Your task to perform on an android device: Check the weather Image 0: 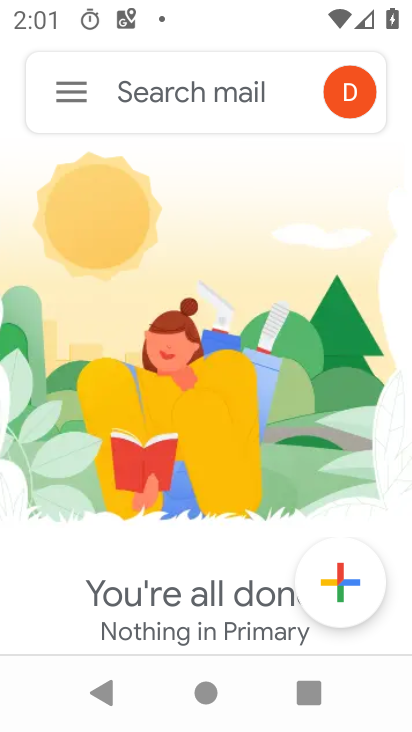
Step 0: press home button
Your task to perform on an android device: Check the weather Image 1: 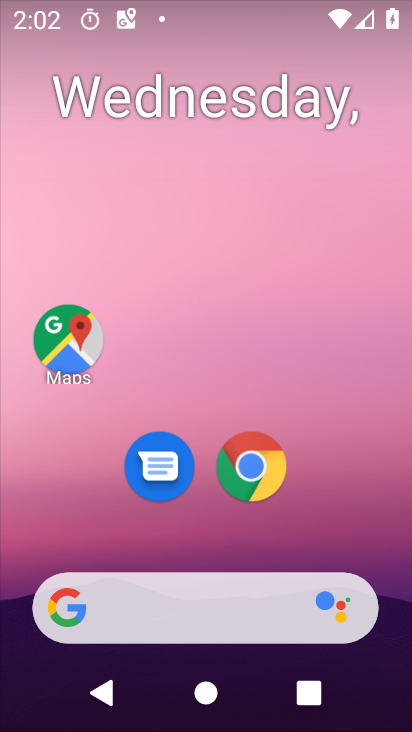
Step 1: click (225, 585)
Your task to perform on an android device: Check the weather Image 2: 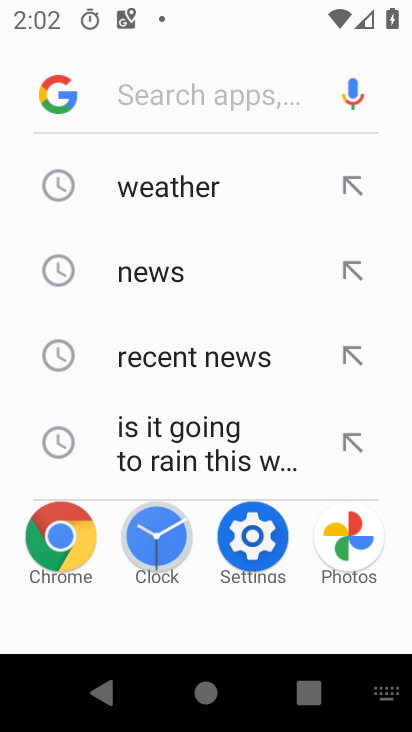
Step 2: click (174, 177)
Your task to perform on an android device: Check the weather Image 3: 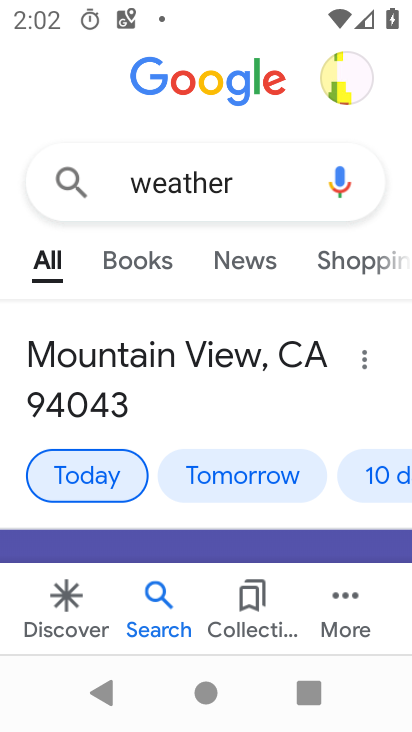
Step 3: drag from (281, 500) to (290, 121)
Your task to perform on an android device: Check the weather Image 4: 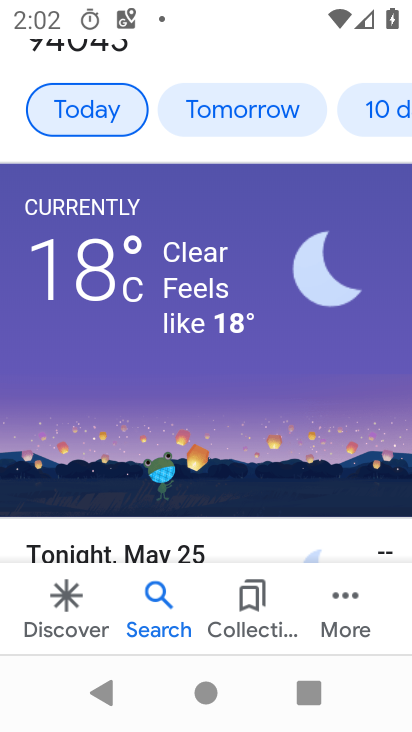
Step 4: drag from (242, 349) to (257, 92)
Your task to perform on an android device: Check the weather Image 5: 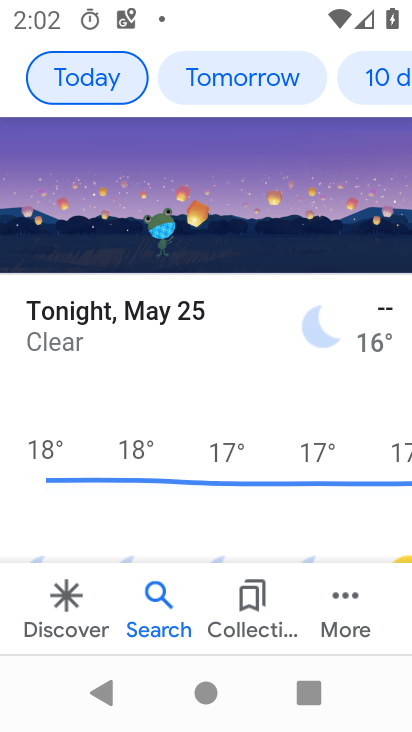
Step 5: drag from (327, 392) to (9, 372)
Your task to perform on an android device: Check the weather Image 6: 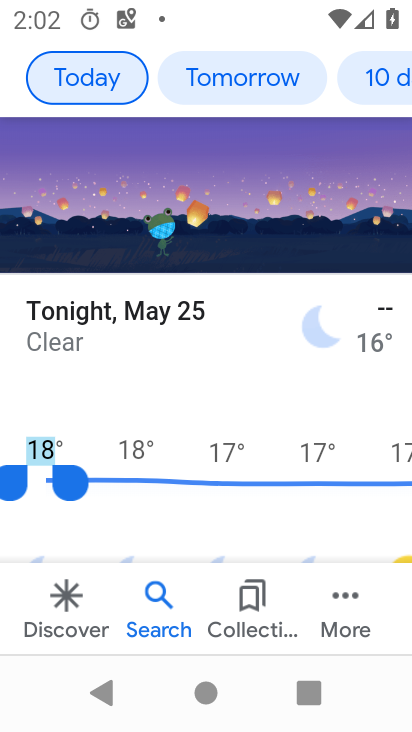
Step 6: click (166, 193)
Your task to perform on an android device: Check the weather Image 7: 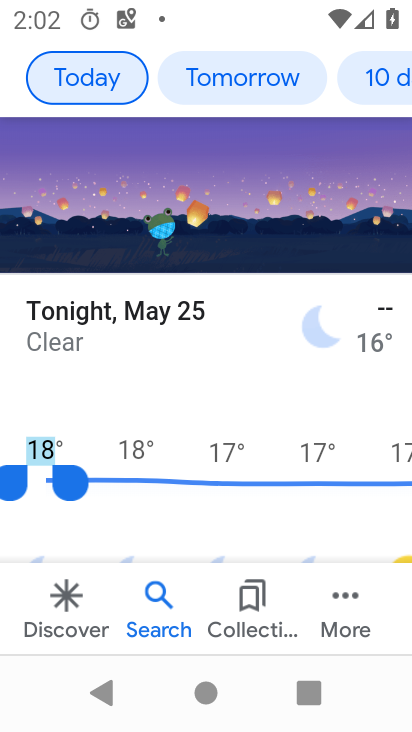
Step 7: task complete